Your task to perform on an android device: Search for a dining table on crateandbarrel.com Image 0: 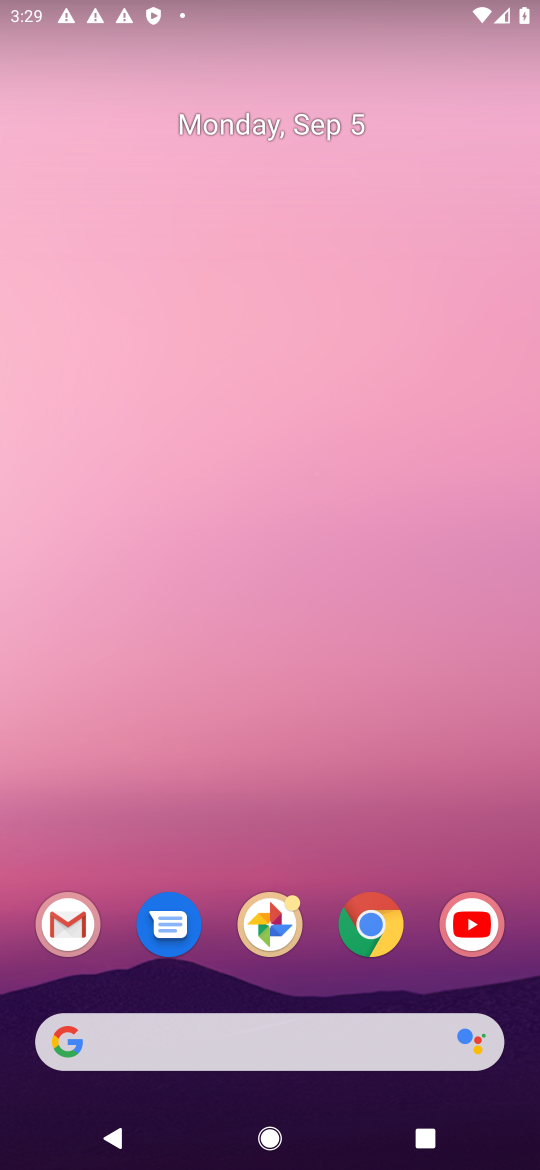
Step 0: drag from (238, 1140) to (245, 1074)
Your task to perform on an android device: Search for a dining table on crateandbarrel.com Image 1: 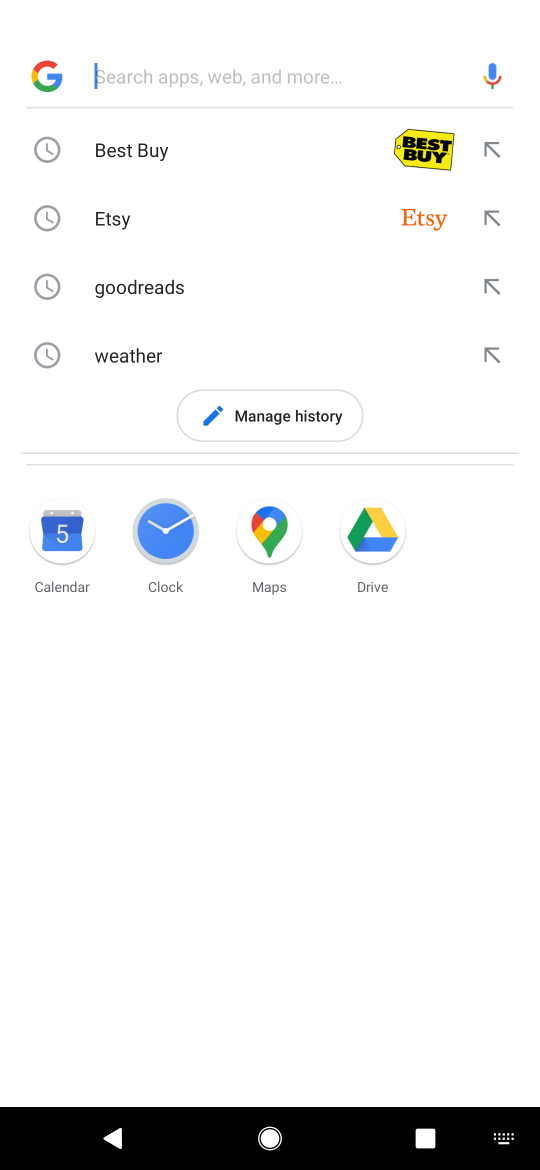
Step 1: type "crate and barrel"
Your task to perform on an android device: Search for a dining table on crateandbarrel.com Image 2: 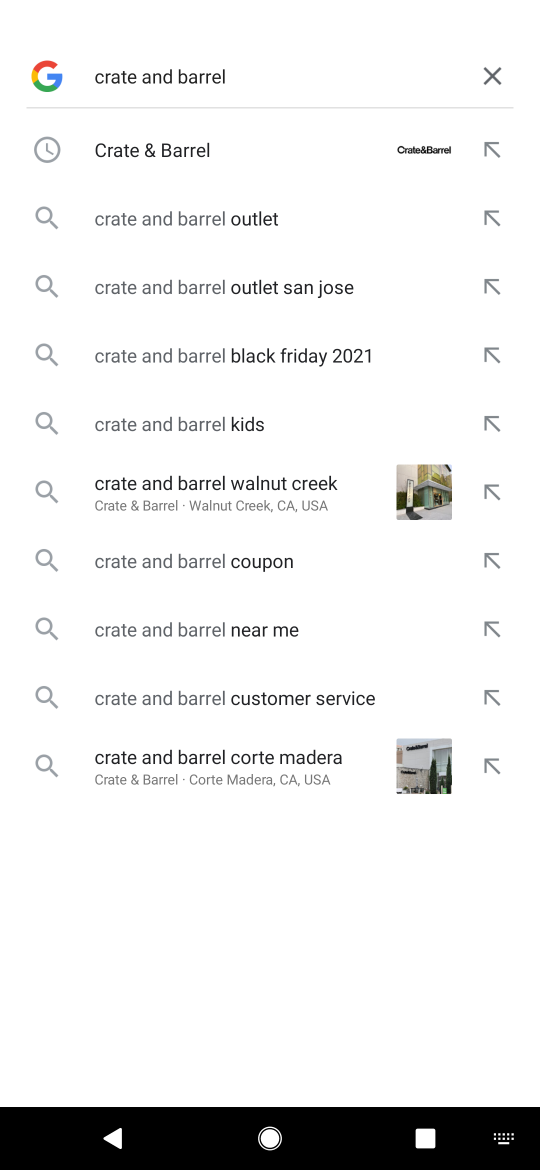
Step 2: click (115, 158)
Your task to perform on an android device: Search for a dining table on crateandbarrel.com Image 3: 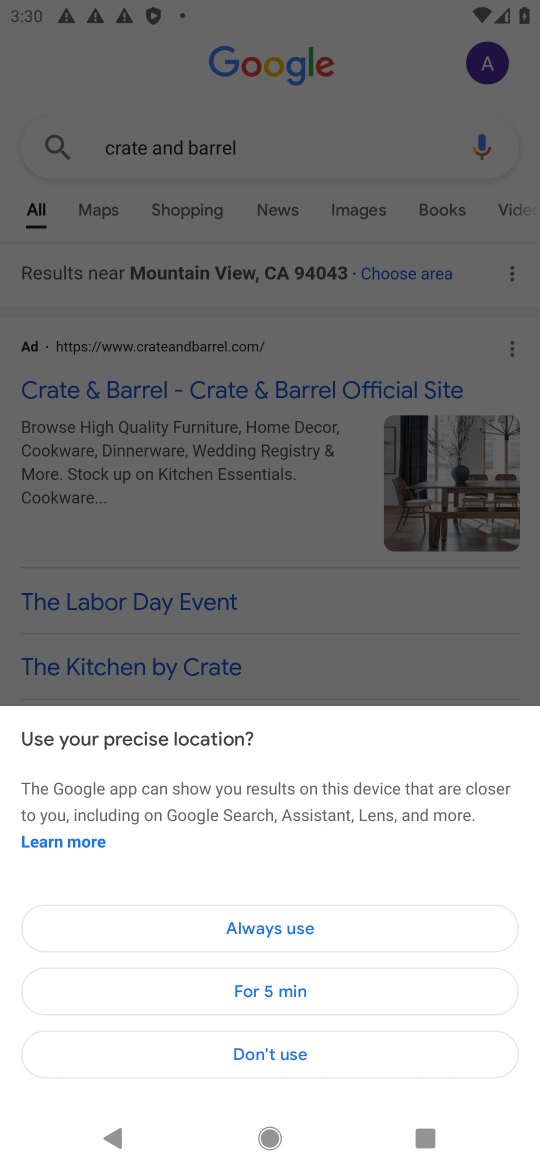
Step 3: click (348, 917)
Your task to perform on an android device: Search for a dining table on crateandbarrel.com Image 4: 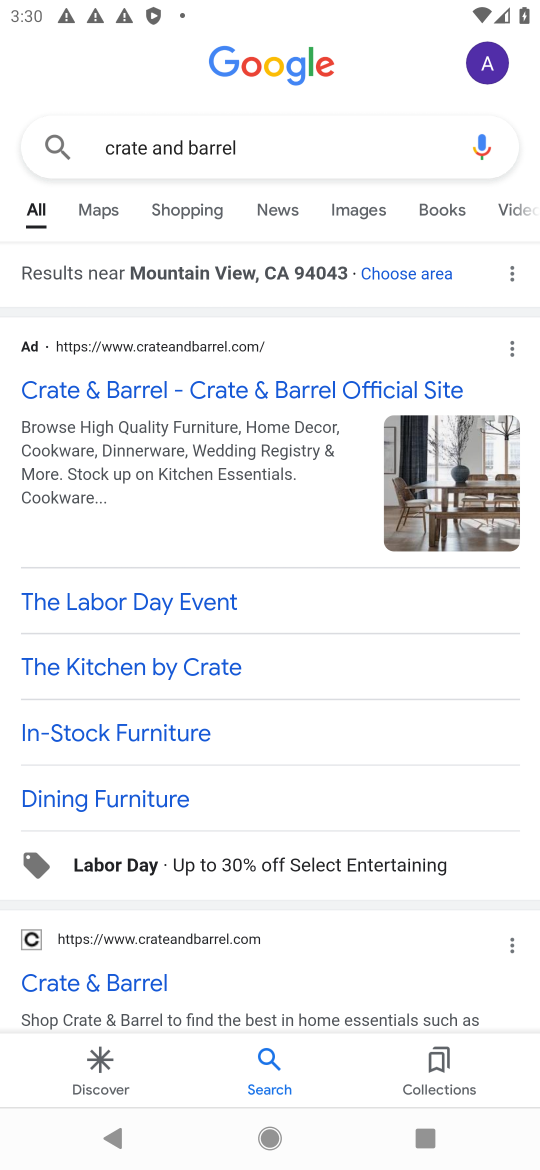
Step 4: click (141, 977)
Your task to perform on an android device: Search for a dining table on crateandbarrel.com Image 5: 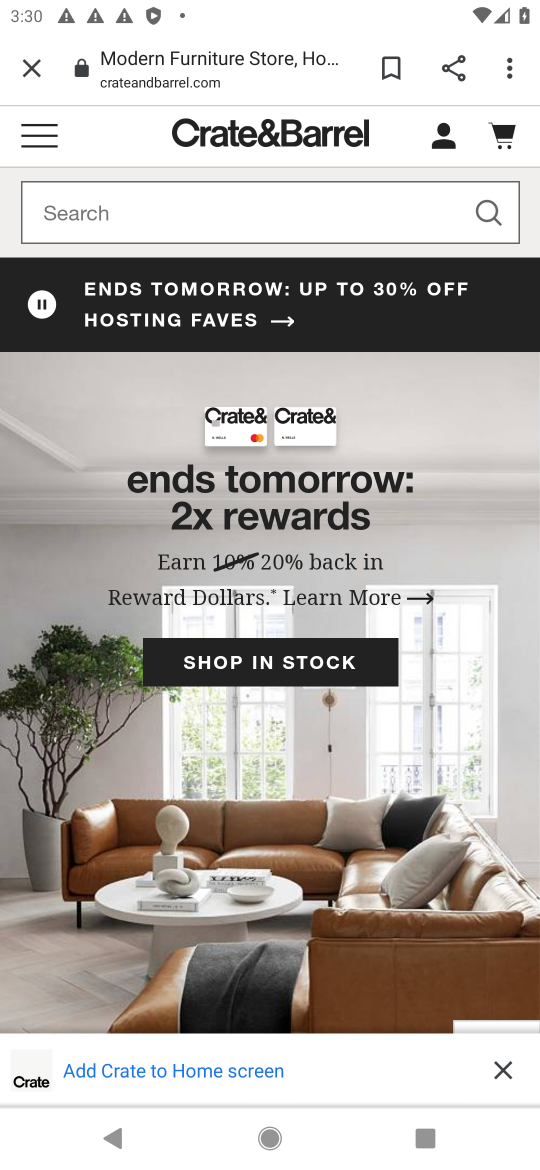
Step 5: click (192, 213)
Your task to perform on an android device: Search for a dining table on crateandbarrel.com Image 6: 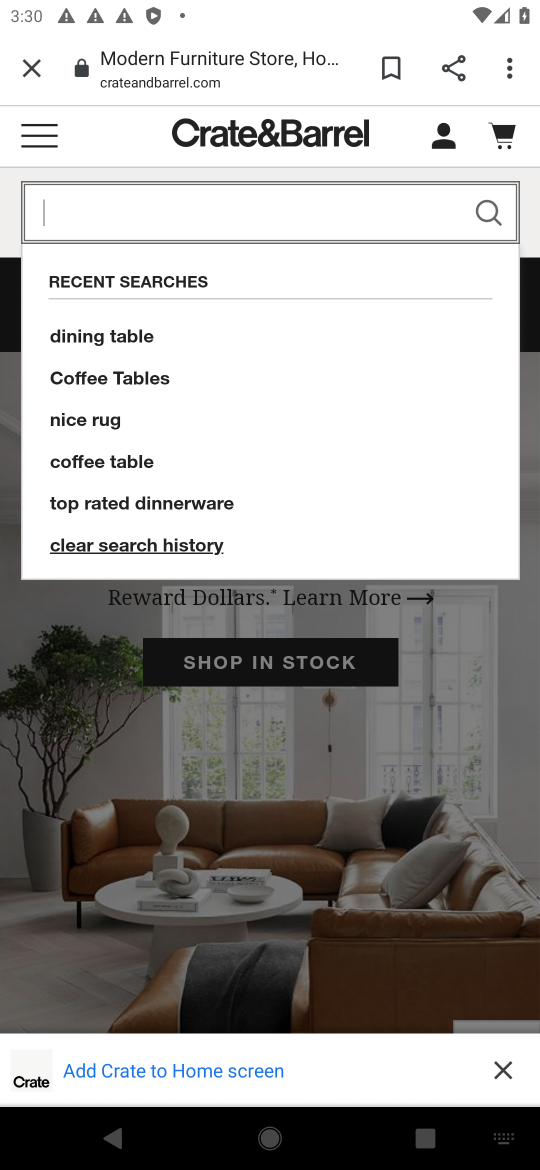
Step 6: click (101, 341)
Your task to perform on an android device: Search for a dining table on crateandbarrel.com Image 7: 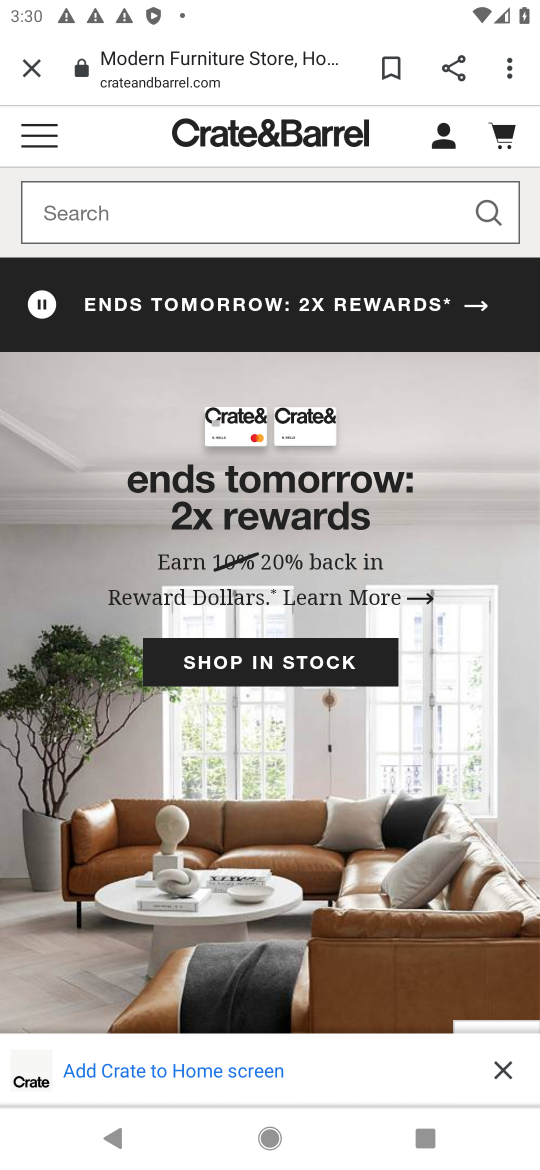
Step 7: click (157, 227)
Your task to perform on an android device: Search for a dining table on crateandbarrel.com Image 8: 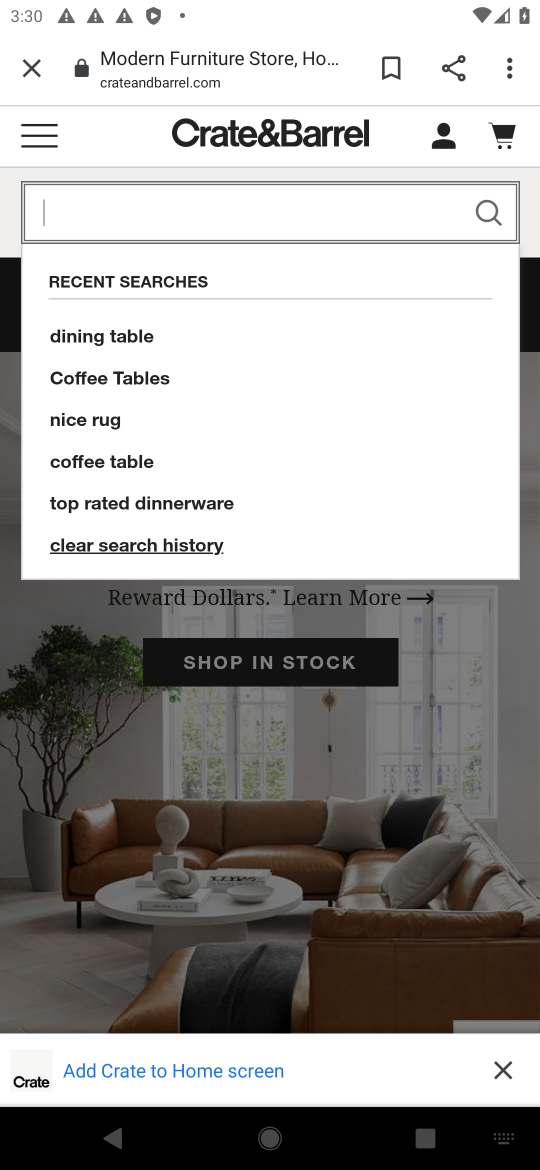
Step 8: click (87, 341)
Your task to perform on an android device: Search for a dining table on crateandbarrel.com Image 9: 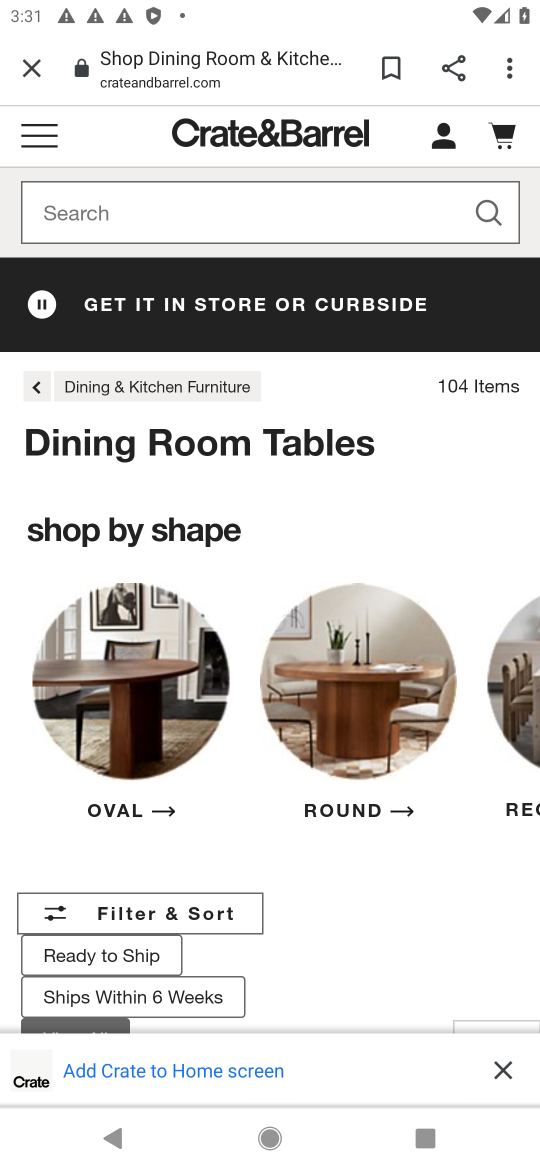
Step 9: task complete